Your task to perform on an android device: all mails in gmail Image 0: 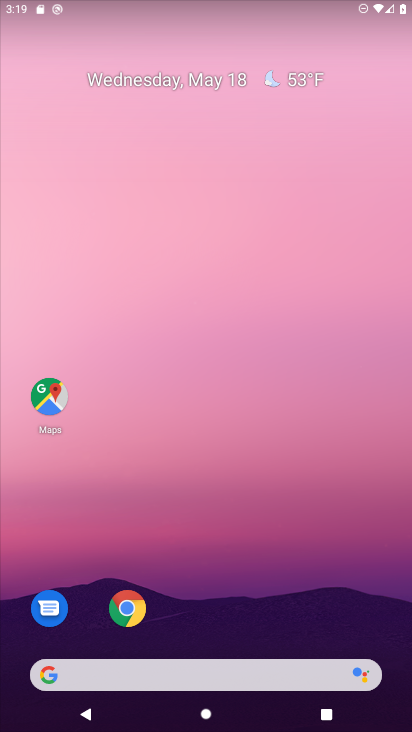
Step 0: drag from (129, 618) to (137, 216)
Your task to perform on an android device: all mails in gmail Image 1: 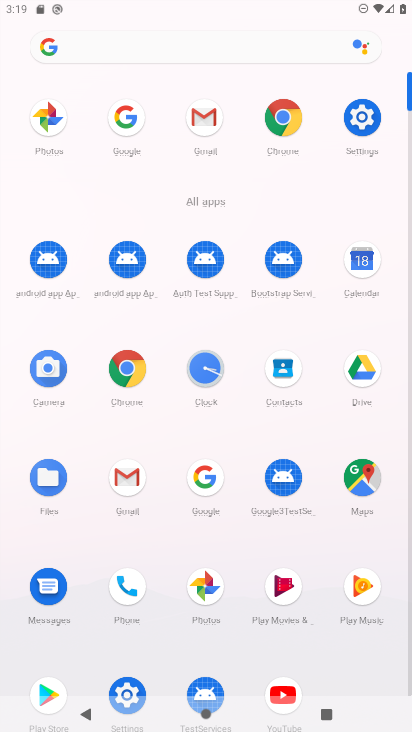
Step 1: click (203, 121)
Your task to perform on an android device: all mails in gmail Image 2: 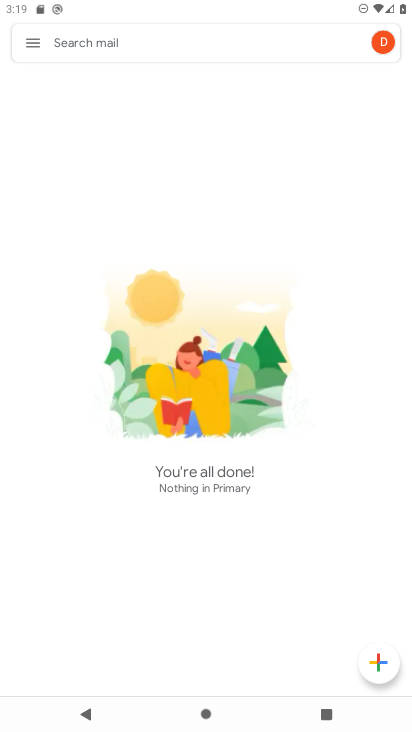
Step 2: click (36, 41)
Your task to perform on an android device: all mails in gmail Image 3: 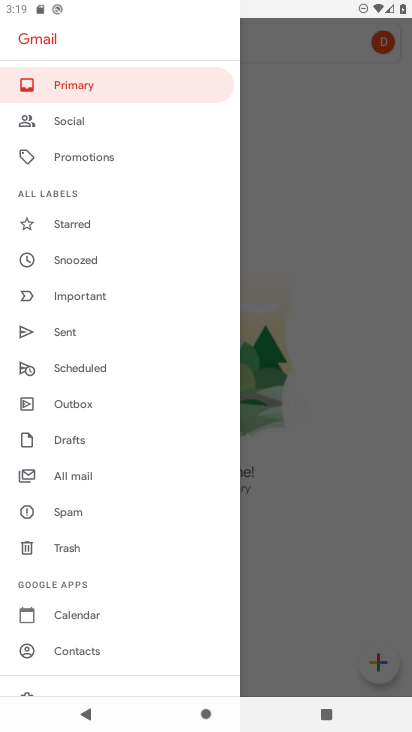
Step 3: click (83, 476)
Your task to perform on an android device: all mails in gmail Image 4: 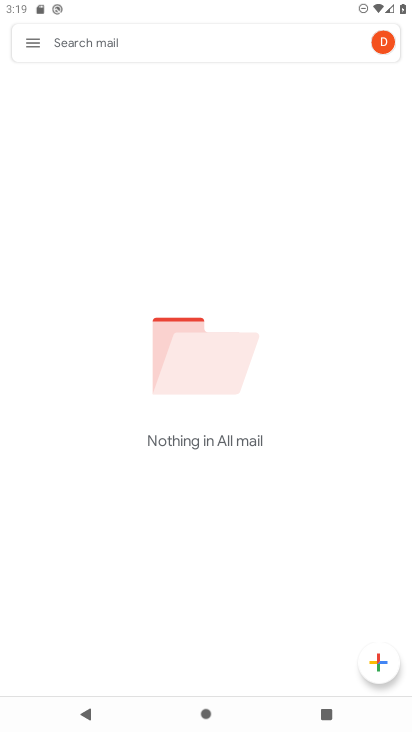
Step 4: task complete